Your task to perform on an android device: empty trash in google photos Image 0: 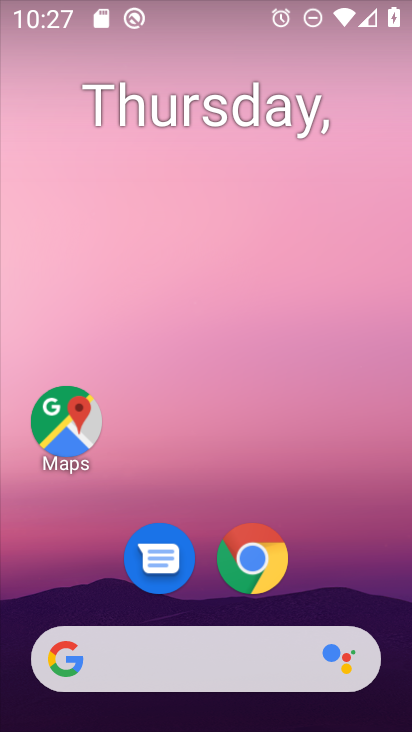
Step 0: drag from (385, 619) to (333, 179)
Your task to perform on an android device: empty trash in google photos Image 1: 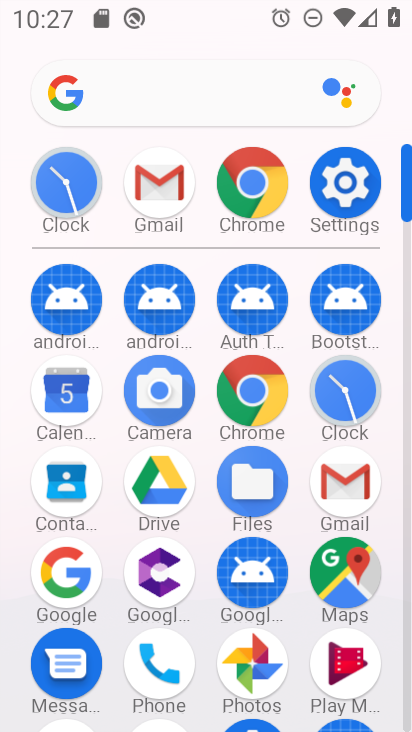
Step 1: click (406, 705)
Your task to perform on an android device: empty trash in google photos Image 2: 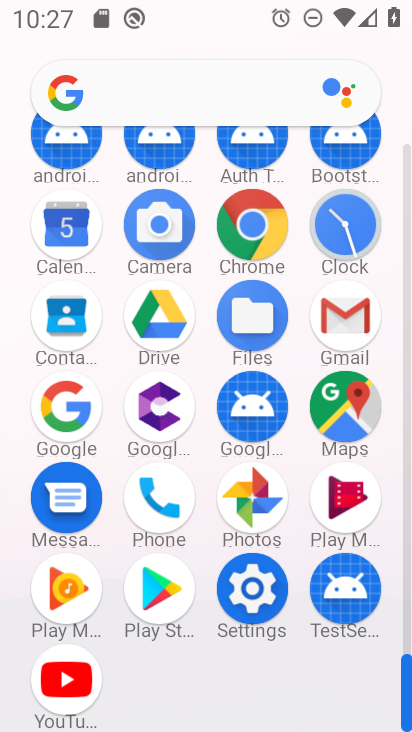
Step 2: click (252, 501)
Your task to perform on an android device: empty trash in google photos Image 3: 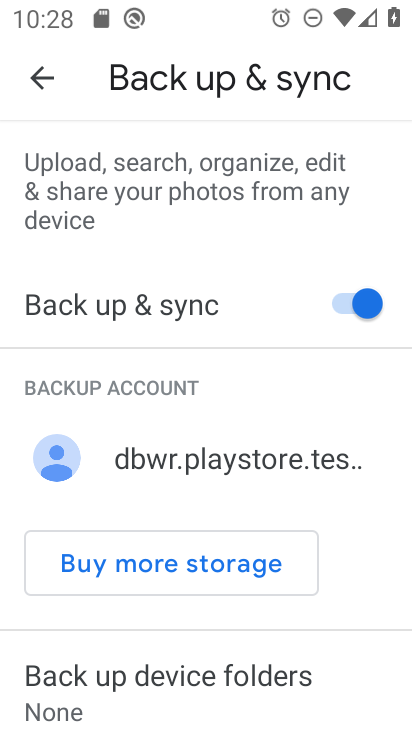
Step 3: press home button
Your task to perform on an android device: empty trash in google photos Image 4: 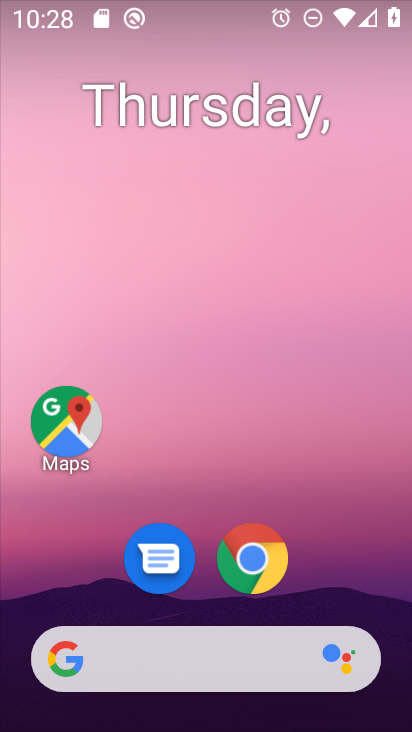
Step 4: drag from (384, 560) to (344, 85)
Your task to perform on an android device: empty trash in google photos Image 5: 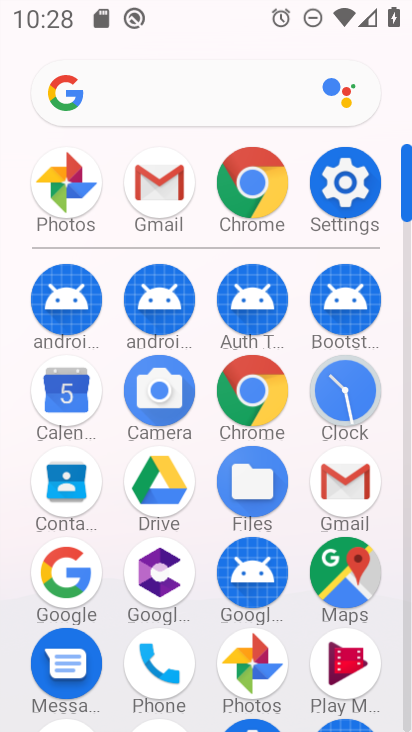
Step 5: click (250, 667)
Your task to perform on an android device: empty trash in google photos Image 6: 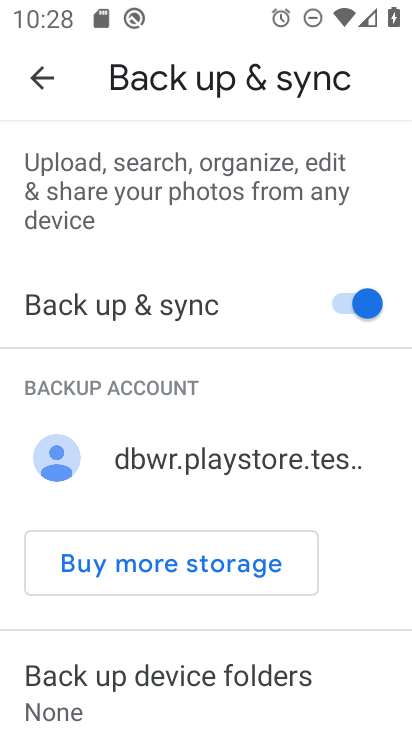
Step 6: press back button
Your task to perform on an android device: empty trash in google photos Image 7: 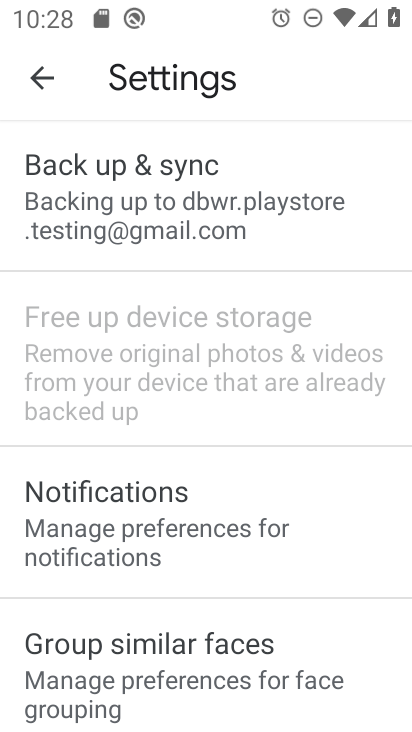
Step 7: press back button
Your task to perform on an android device: empty trash in google photos Image 8: 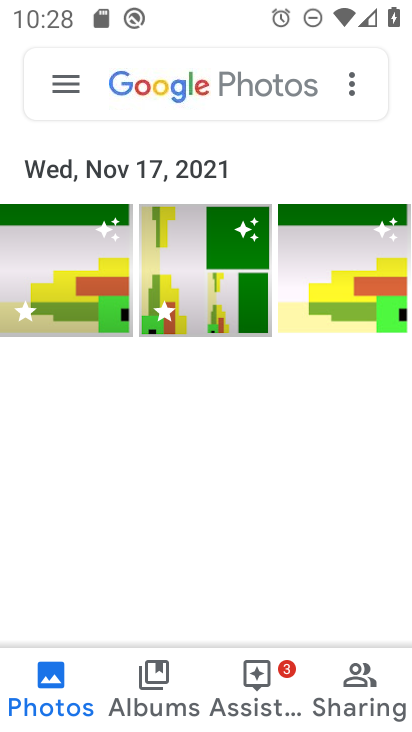
Step 8: click (66, 83)
Your task to perform on an android device: empty trash in google photos Image 9: 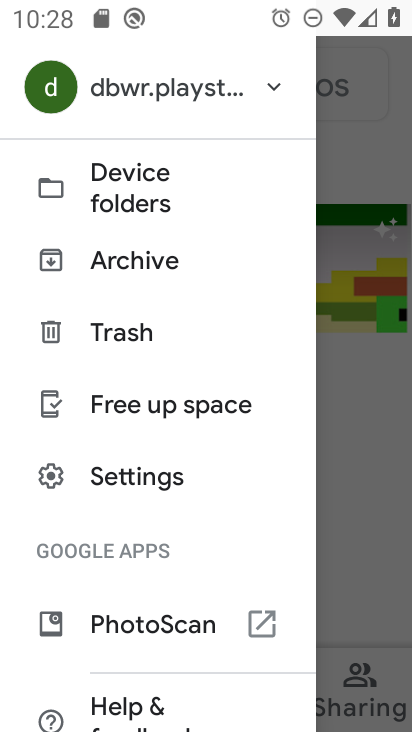
Step 9: click (103, 346)
Your task to perform on an android device: empty trash in google photos Image 10: 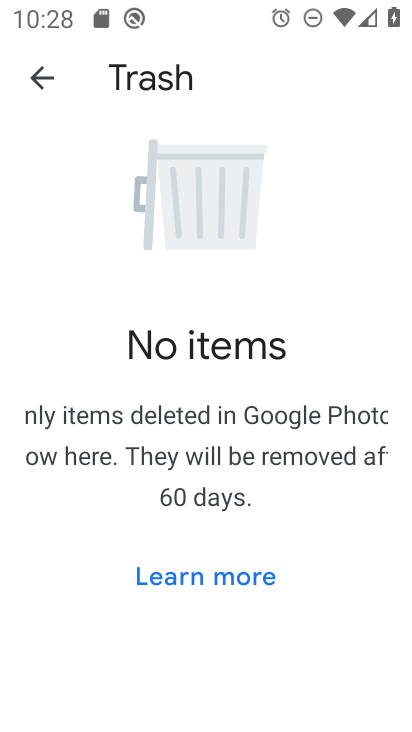
Step 10: task complete